Your task to perform on an android device: remove spam from my inbox in the gmail app Image 0: 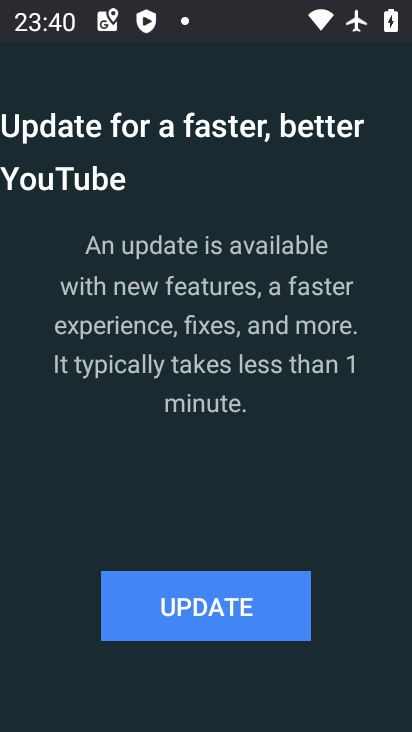
Step 0: press home button
Your task to perform on an android device: remove spam from my inbox in the gmail app Image 1: 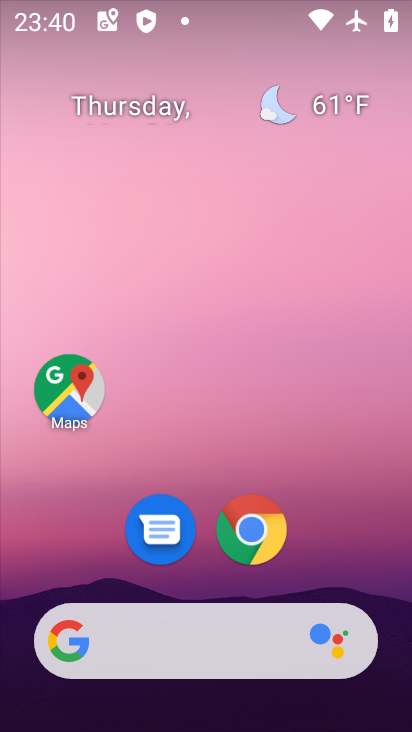
Step 1: drag from (389, 545) to (260, 4)
Your task to perform on an android device: remove spam from my inbox in the gmail app Image 2: 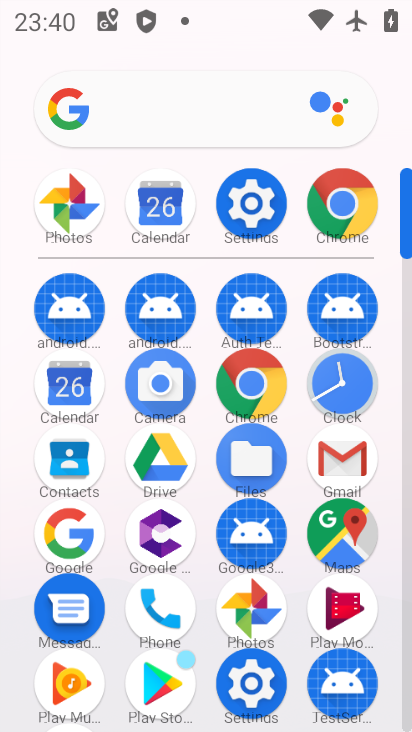
Step 2: click (335, 453)
Your task to perform on an android device: remove spam from my inbox in the gmail app Image 3: 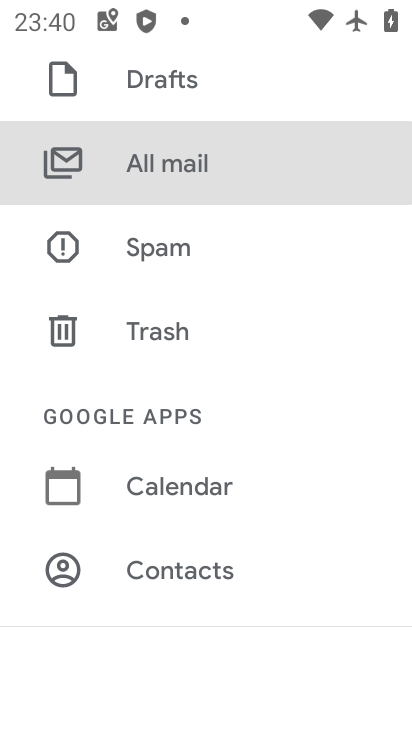
Step 3: click (230, 363)
Your task to perform on an android device: remove spam from my inbox in the gmail app Image 4: 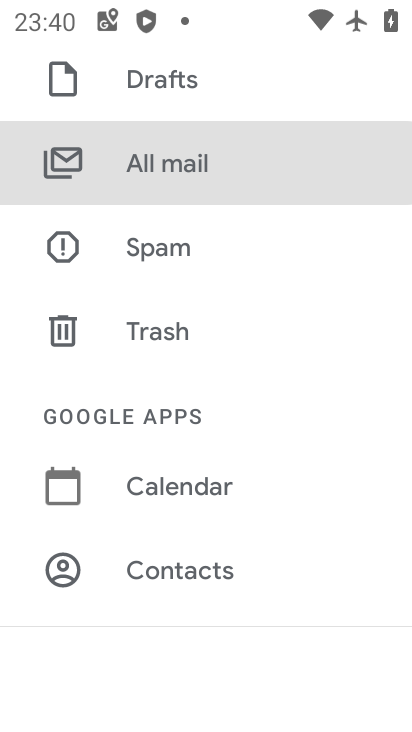
Step 4: click (230, 363)
Your task to perform on an android device: remove spam from my inbox in the gmail app Image 5: 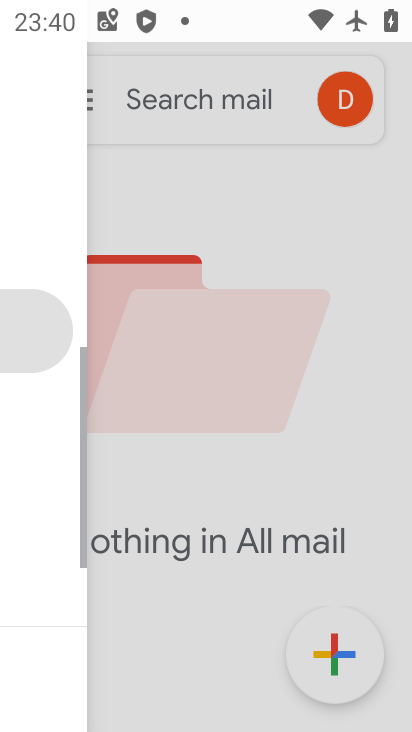
Step 5: drag from (230, 363) to (231, 656)
Your task to perform on an android device: remove spam from my inbox in the gmail app Image 6: 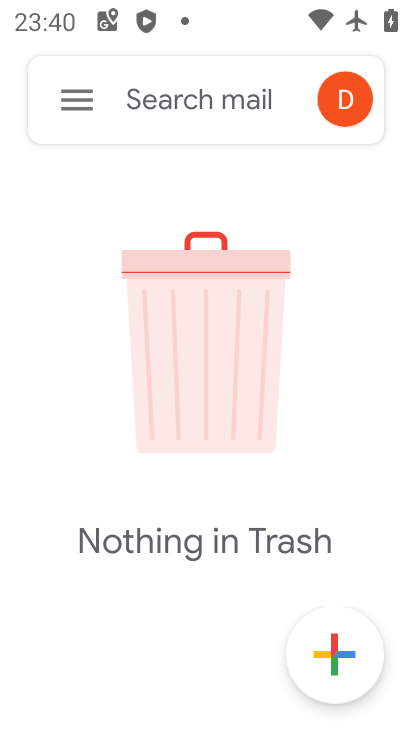
Step 6: click (90, 115)
Your task to perform on an android device: remove spam from my inbox in the gmail app Image 7: 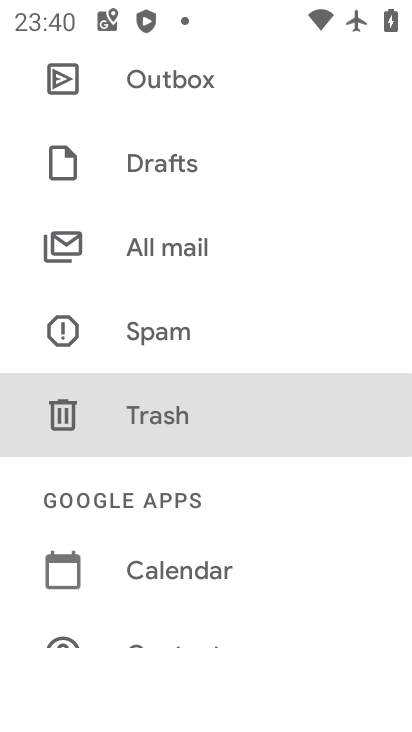
Step 7: drag from (286, 264) to (359, 522)
Your task to perform on an android device: remove spam from my inbox in the gmail app Image 8: 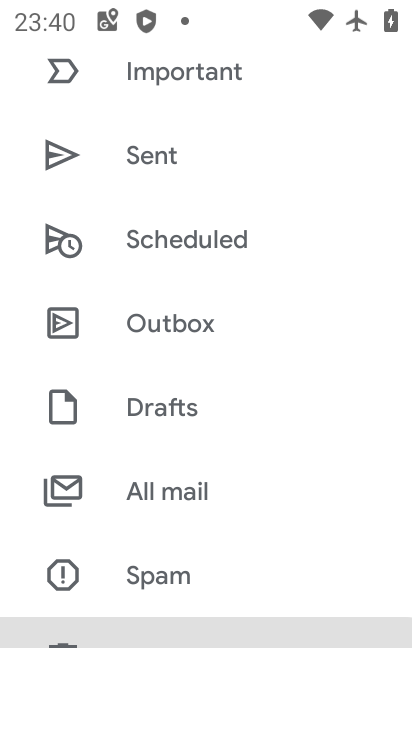
Step 8: click (207, 593)
Your task to perform on an android device: remove spam from my inbox in the gmail app Image 9: 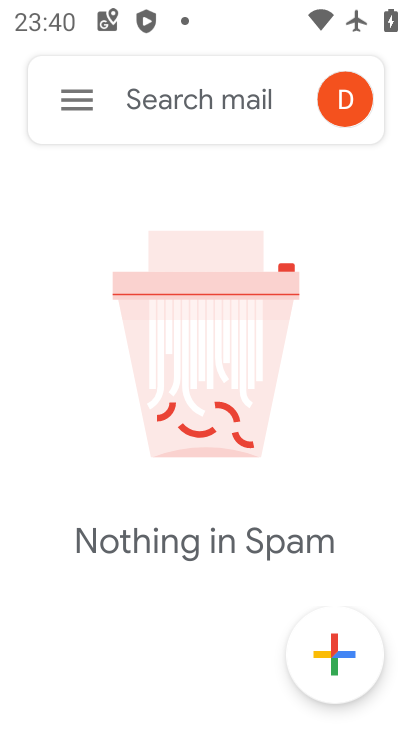
Step 9: task complete